Your task to perform on an android device: open app "Mercado Libre" (install if not already installed) and enter user name: "tolerating@yahoo.com" and password: "Kepler" Image 0: 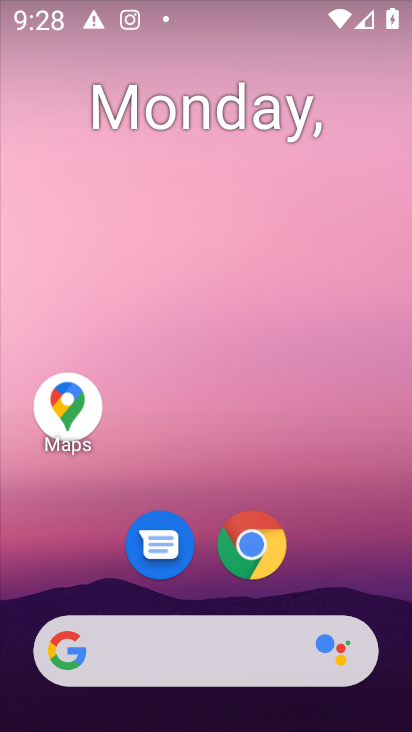
Step 0: press home button
Your task to perform on an android device: open app "Mercado Libre" (install if not already installed) and enter user name: "tolerating@yahoo.com" and password: "Kepler" Image 1: 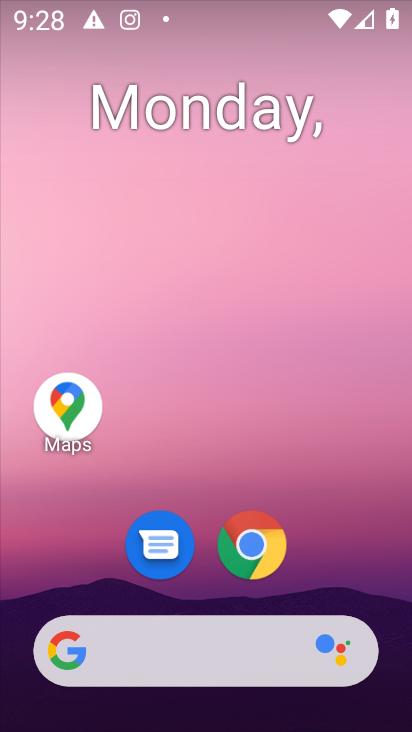
Step 1: drag from (346, 571) to (341, 67)
Your task to perform on an android device: open app "Mercado Libre" (install if not already installed) and enter user name: "tolerating@yahoo.com" and password: "Kepler" Image 2: 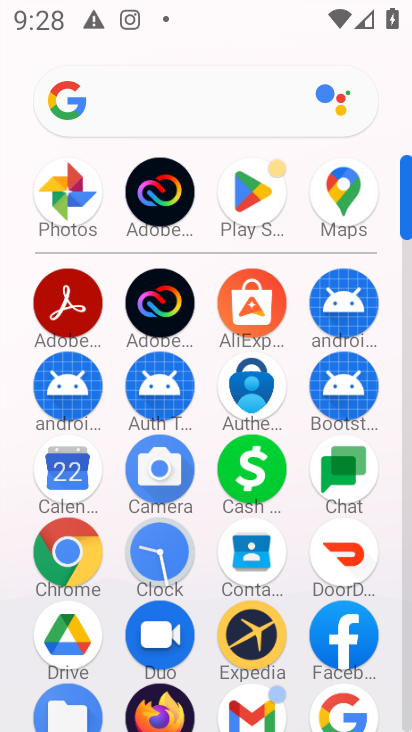
Step 2: click (253, 196)
Your task to perform on an android device: open app "Mercado Libre" (install if not already installed) and enter user name: "tolerating@yahoo.com" and password: "Kepler" Image 3: 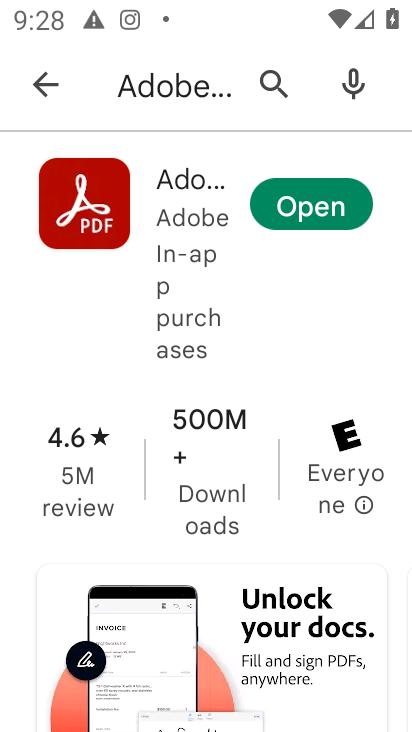
Step 3: press back button
Your task to perform on an android device: open app "Mercado Libre" (install if not already installed) and enter user name: "tolerating@yahoo.com" and password: "Kepler" Image 4: 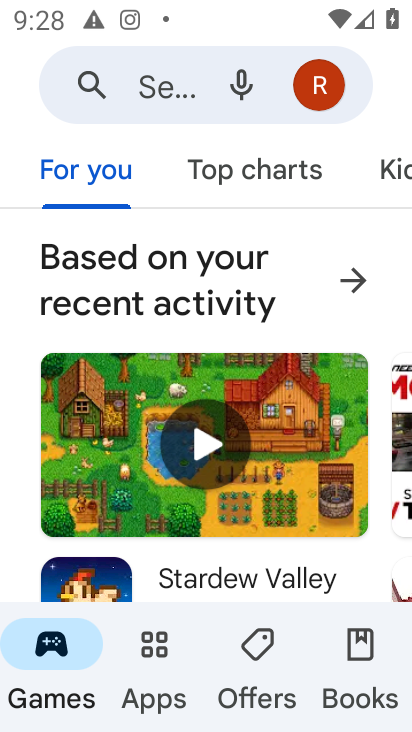
Step 4: click (174, 89)
Your task to perform on an android device: open app "Mercado Libre" (install if not already installed) and enter user name: "tolerating@yahoo.com" and password: "Kepler" Image 5: 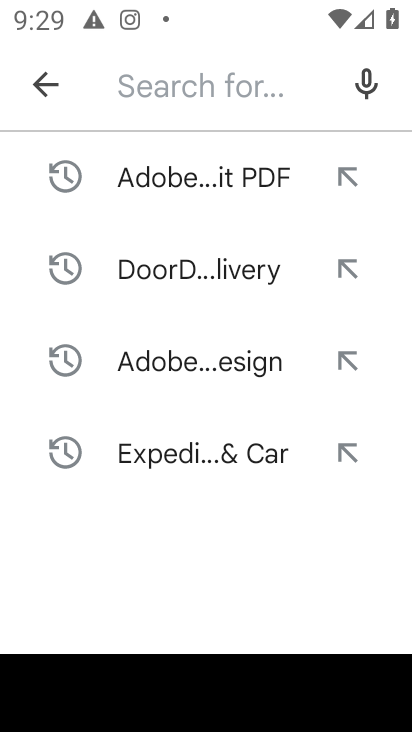
Step 5: type "Mercado Libre"
Your task to perform on an android device: open app "Mercado Libre" (install if not already installed) and enter user name: "tolerating@yahoo.com" and password: "Kepler" Image 6: 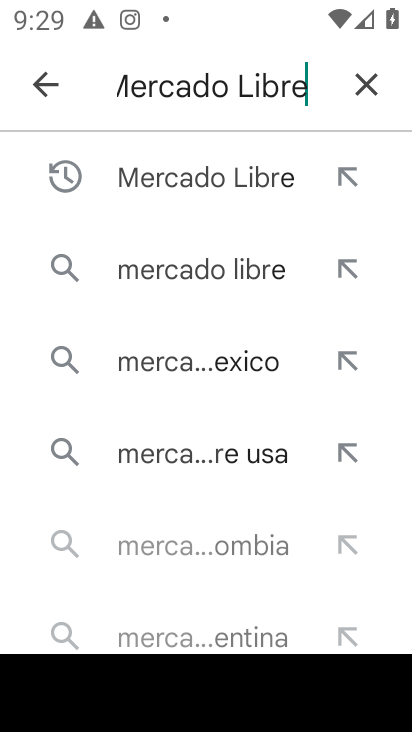
Step 6: press enter
Your task to perform on an android device: open app "Mercado Libre" (install if not already installed) and enter user name: "tolerating@yahoo.com" and password: "Kepler" Image 7: 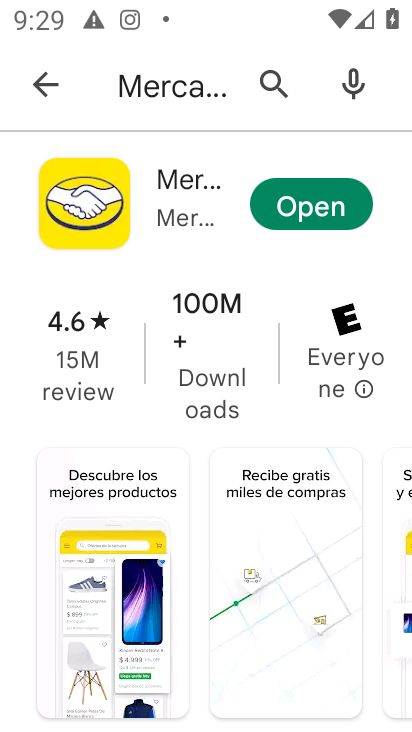
Step 7: click (313, 210)
Your task to perform on an android device: open app "Mercado Libre" (install if not already installed) and enter user name: "tolerating@yahoo.com" and password: "Kepler" Image 8: 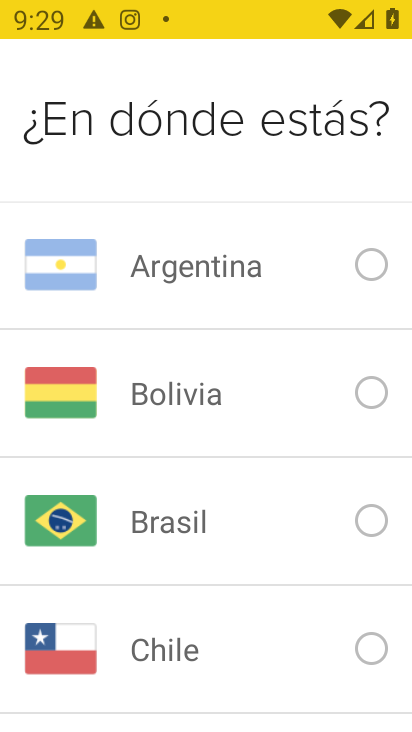
Step 8: task complete